Your task to perform on an android device: turn off picture-in-picture Image 0: 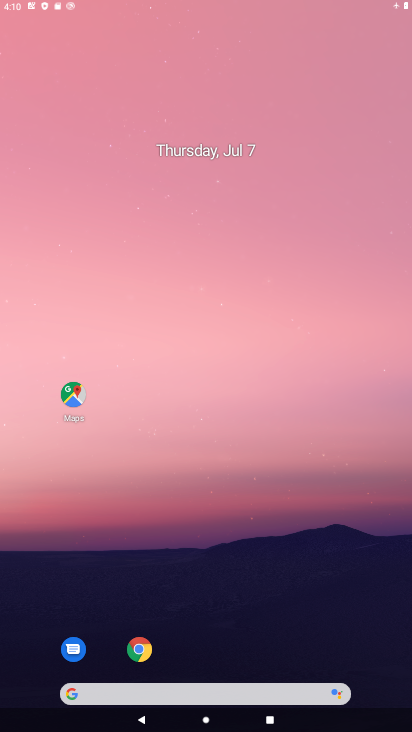
Step 0: drag from (321, 517) to (221, 16)
Your task to perform on an android device: turn off picture-in-picture Image 1: 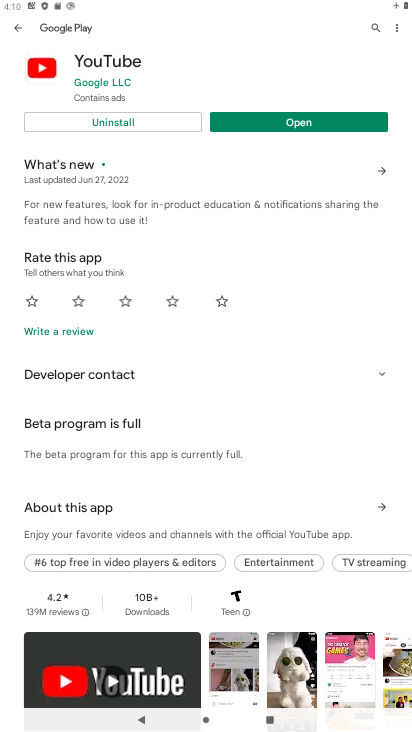
Step 1: press home button
Your task to perform on an android device: turn off picture-in-picture Image 2: 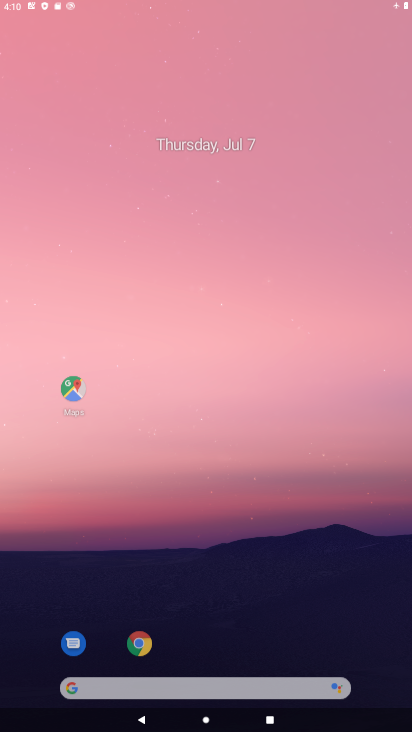
Step 2: drag from (375, 699) to (227, 15)
Your task to perform on an android device: turn off picture-in-picture Image 3: 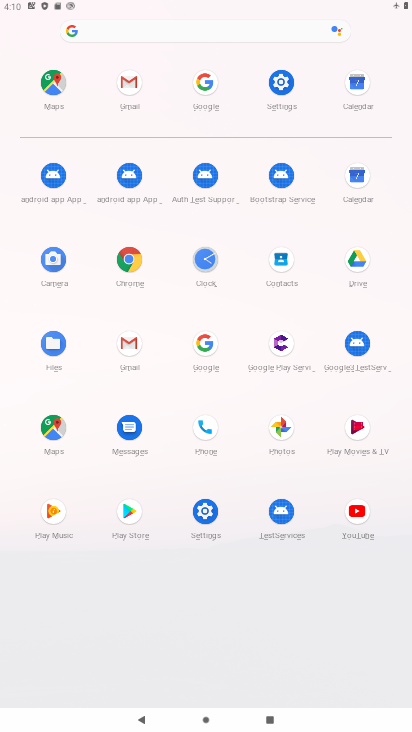
Step 3: click (127, 264)
Your task to perform on an android device: turn off picture-in-picture Image 4: 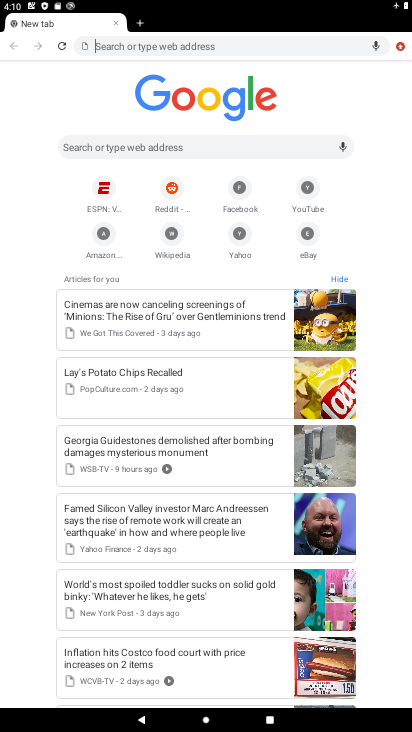
Step 4: task complete